Your task to perform on an android device: turn on airplane mode Image 0: 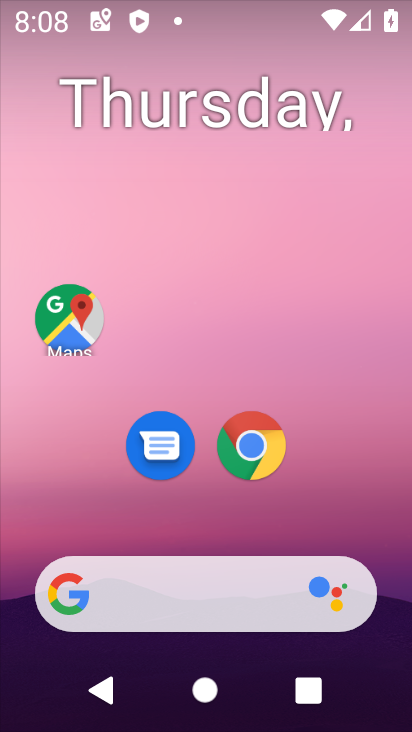
Step 0: drag from (400, 590) to (317, 101)
Your task to perform on an android device: turn on airplane mode Image 1: 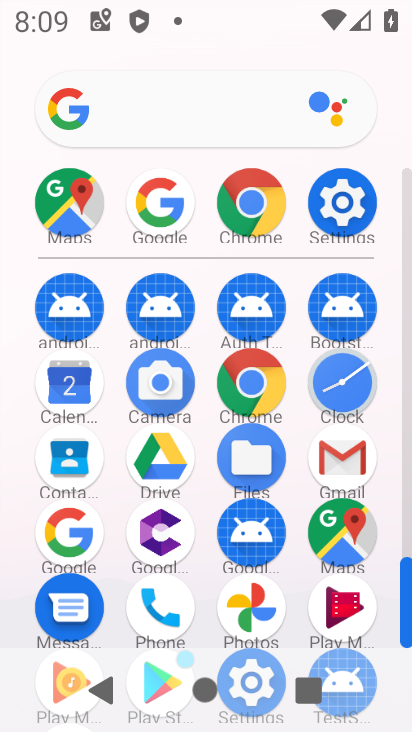
Step 1: press back button
Your task to perform on an android device: turn on airplane mode Image 2: 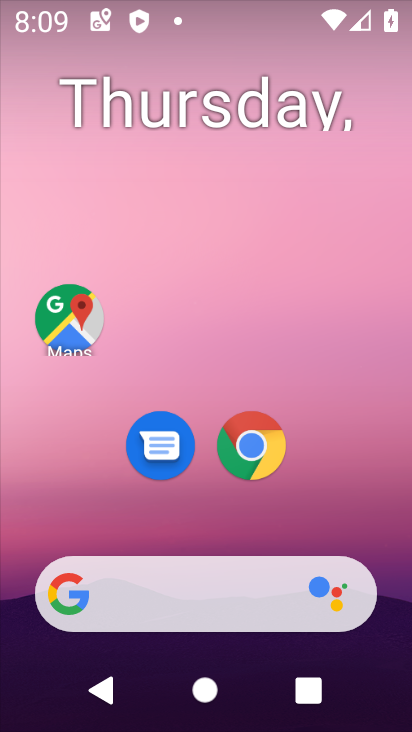
Step 2: drag from (232, 10) to (223, 510)
Your task to perform on an android device: turn on airplane mode Image 3: 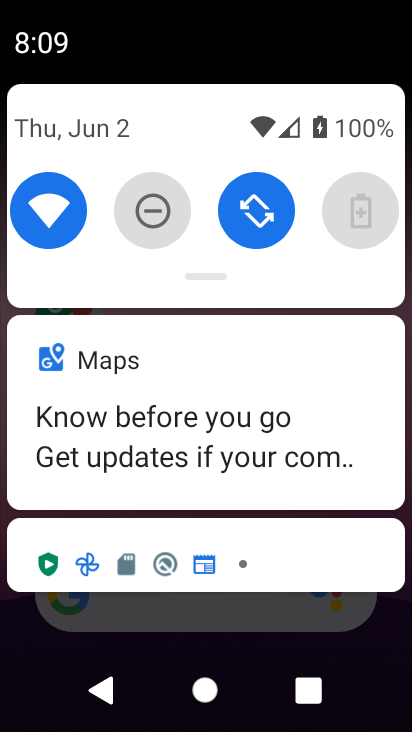
Step 3: drag from (204, 267) to (193, 590)
Your task to perform on an android device: turn on airplane mode Image 4: 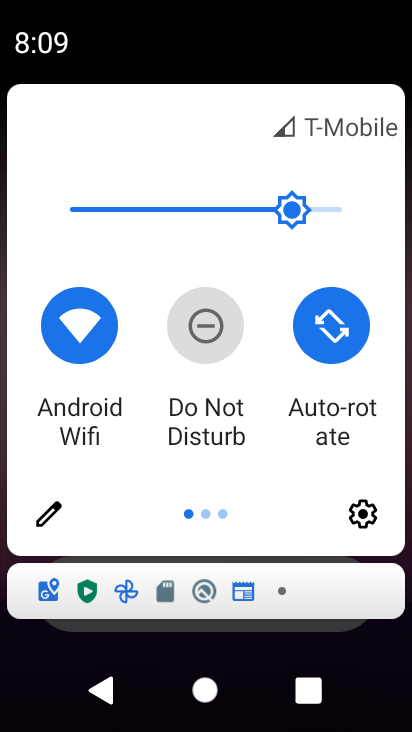
Step 4: drag from (346, 413) to (21, 412)
Your task to perform on an android device: turn on airplane mode Image 5: 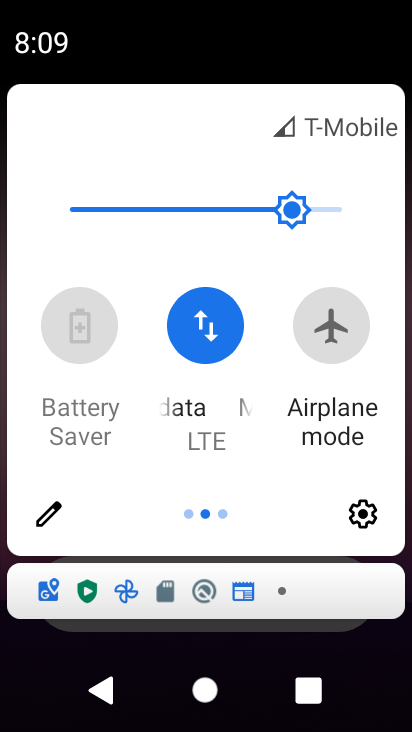
Step 5: click (358, 308)
Your task to perform on an android device: turn on airplane mode Image 6: 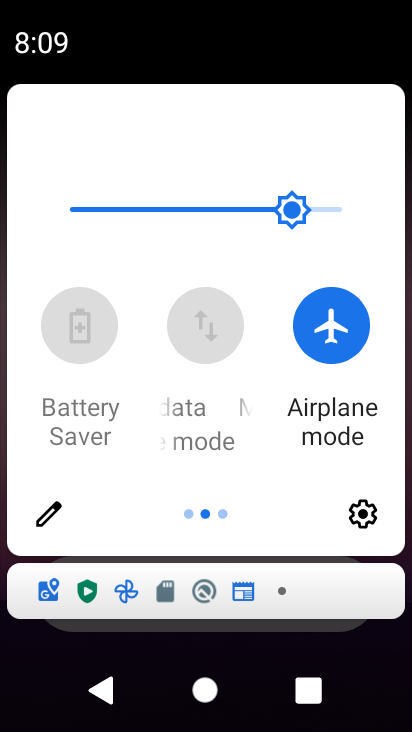
Step 6: task complete